Your task to perform on an android device: refresh tabs in the chrome app Image 0: 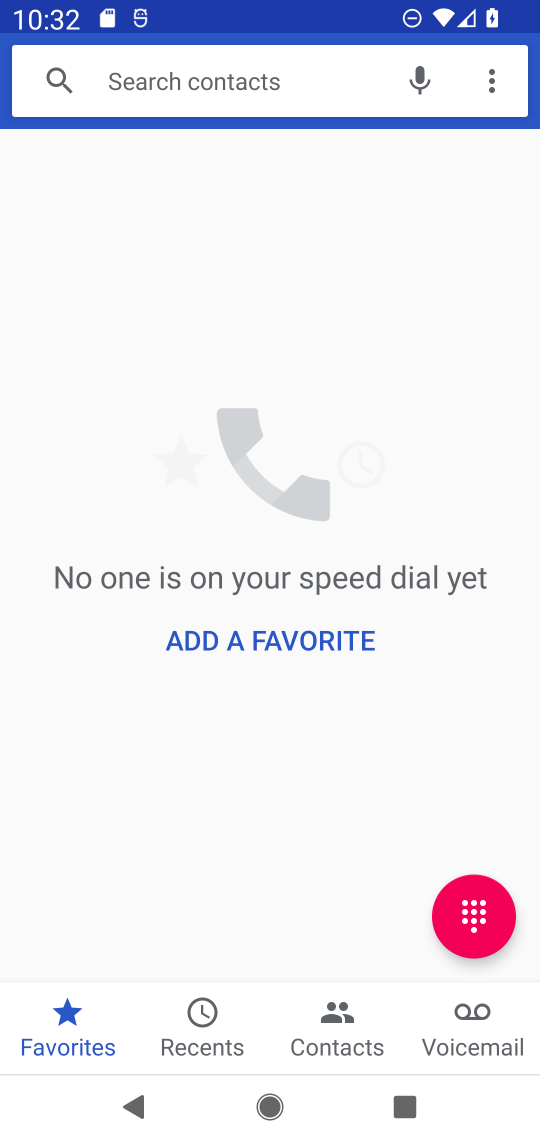
Step 0: press home button
Your task to perform on an android device: refresh tabs in the chrome app Image 1: 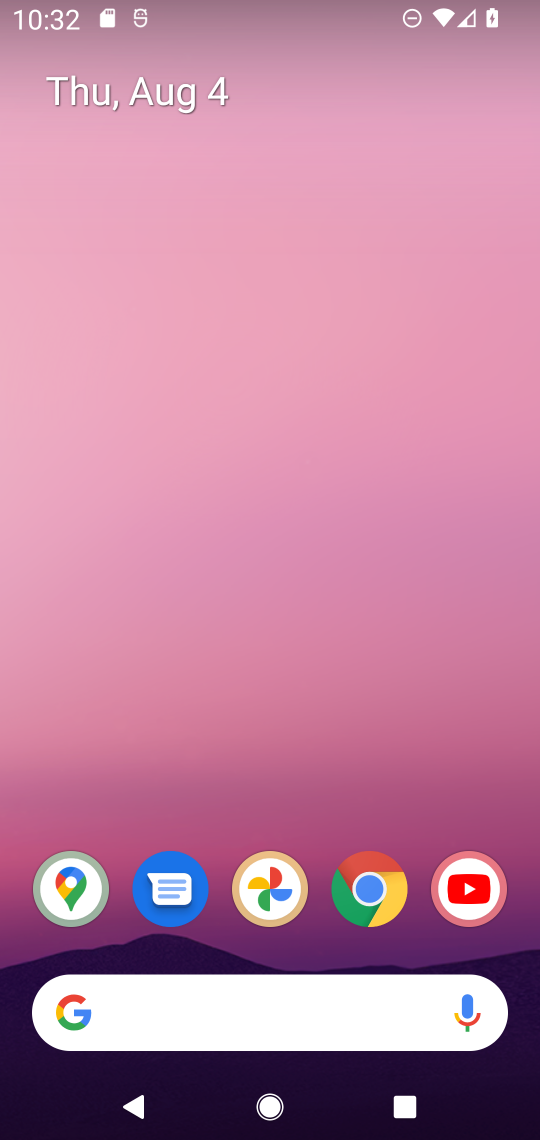
Step 1: drag from (390, 740) to (400, 265)
Your task to perform on an android device: refresh tabs in the chrome app Image 2: 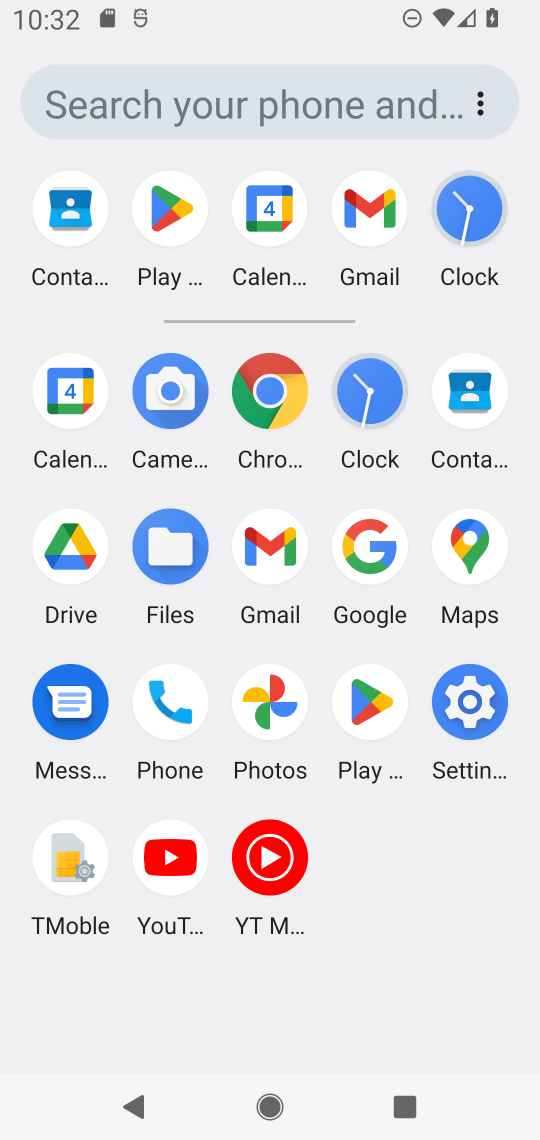
Step 2: click (260, 400)
Your task to perform on an android device: refresh tabs in the chrome app Image 3: 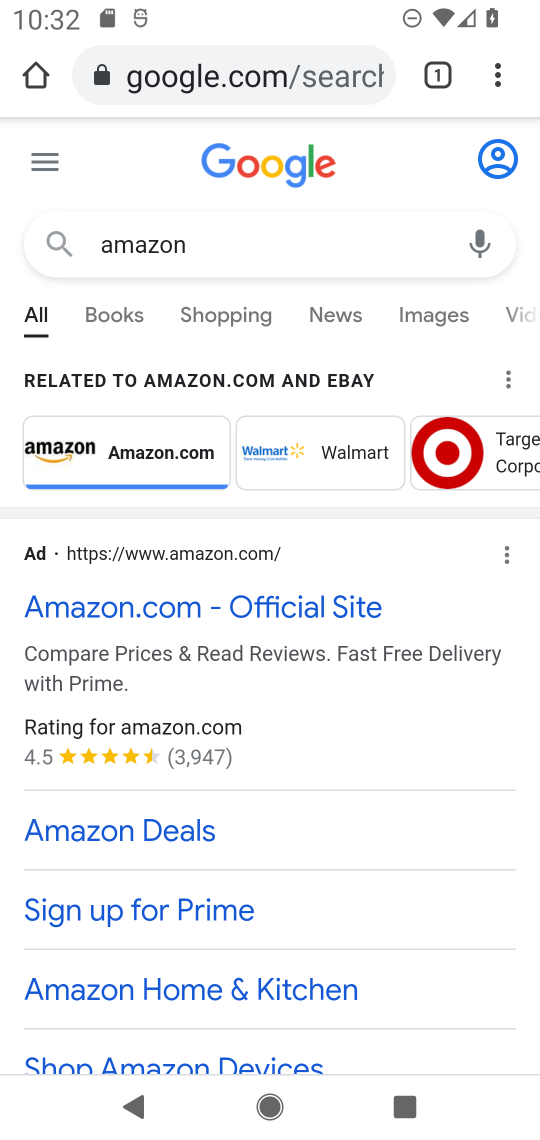
Step 3: click (497, 85)
Your task to perform on an android device: refresh tabs in the chrome app Image 4: 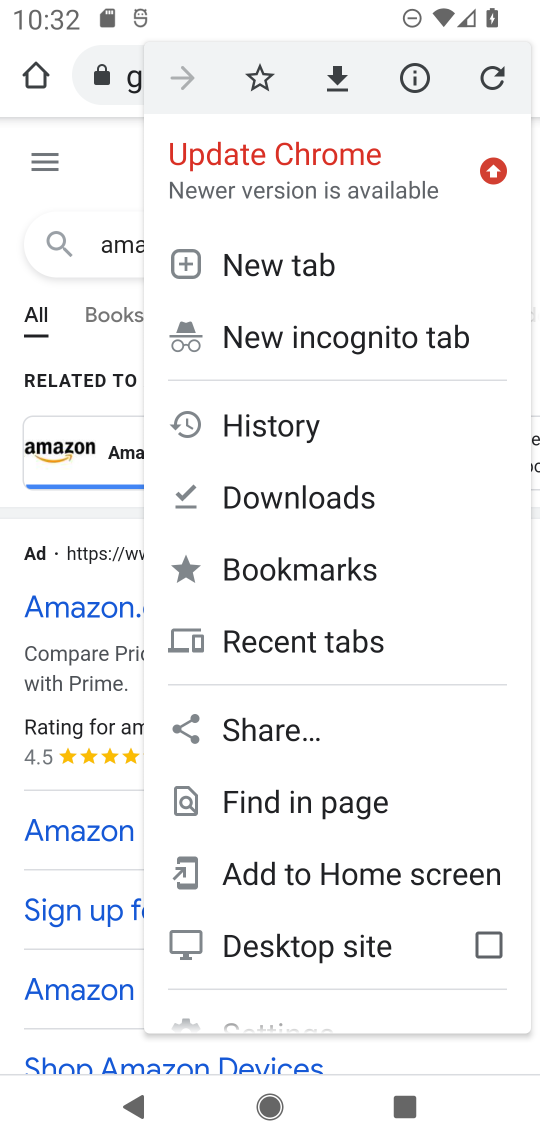
Step 4: click (487, 81)
Your task to perform on an android device: refresh tabs in the chrome app Image 5: 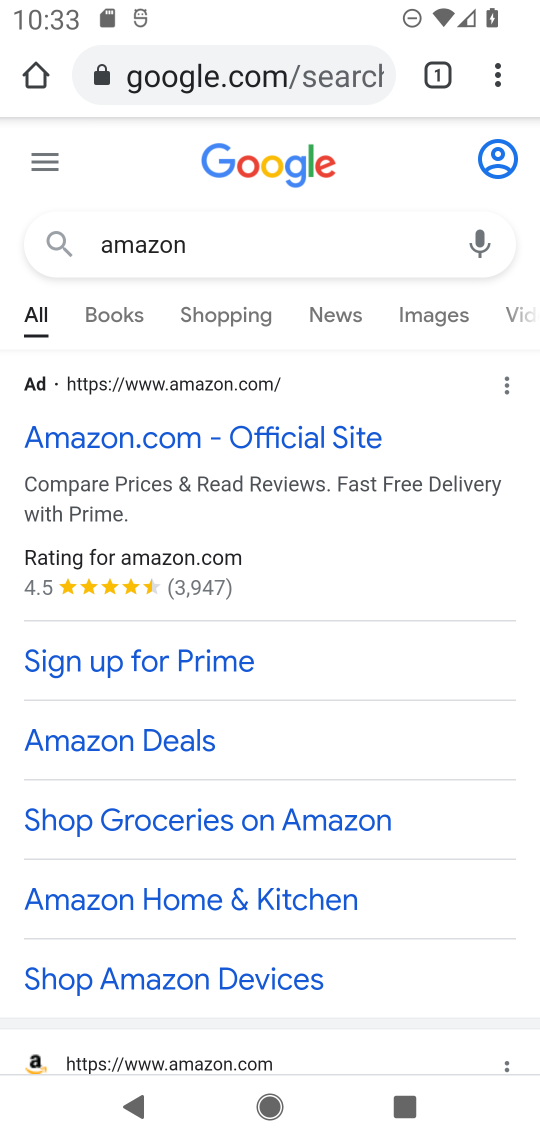
Step 5: task complete